Your task to perform on an android device: turn on the 12-hour format for clock Image 0: 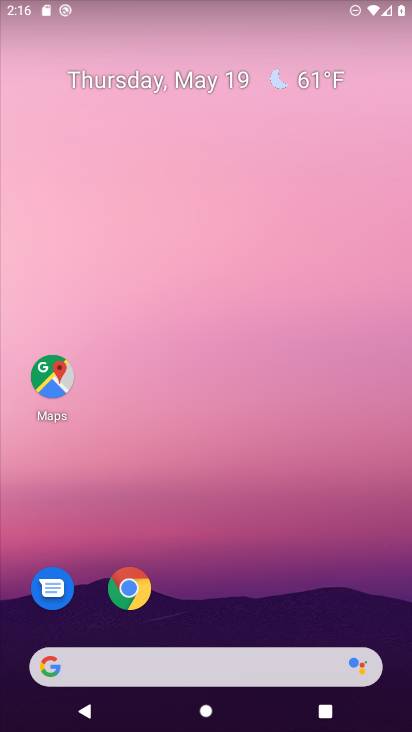
Step 0: drag from (342, 624) to (293, 0)
Your task to perform on an android device: turn on the 12-hour format for clock Image 1: 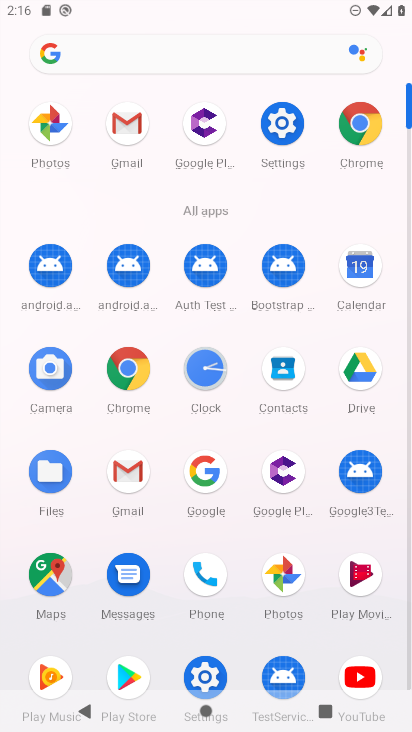
Step 1: click (206, 369)
Your task to perform on an android device: turn on the 12-hour format for clock Image 2: 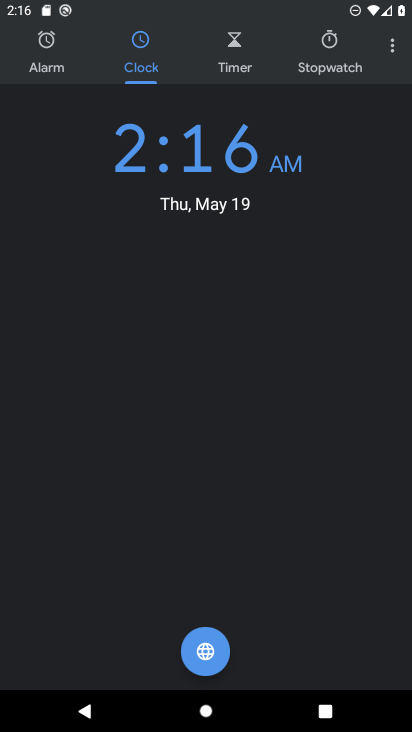
Step 2: click (394, 46)
Your task to perform on an android device: turn on the 12-hour format for clock Image 3: 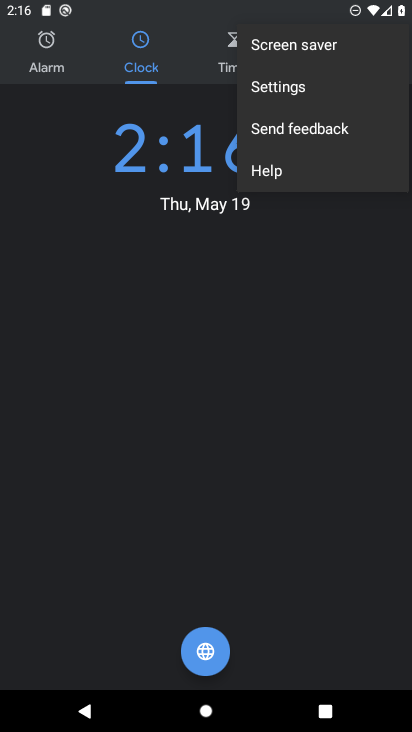
Step 3: click (275, 86)
Your task to perform on an android device: turn on the 12-hour format for clock Image 4: 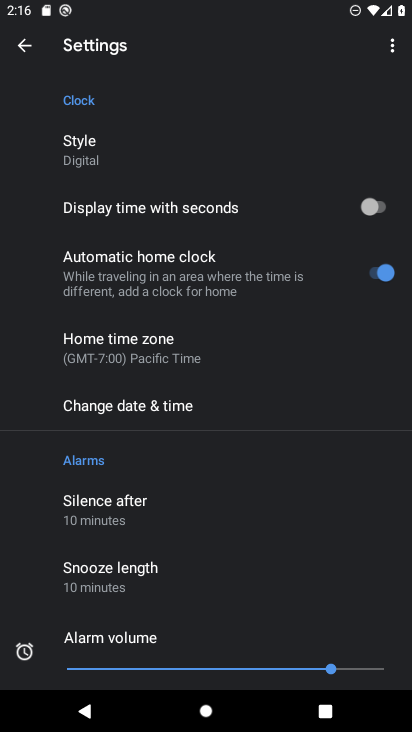
Step 4: click (95, 409)
Your task to perform on an android device: turn on the 12-hour format for clock Image 5: 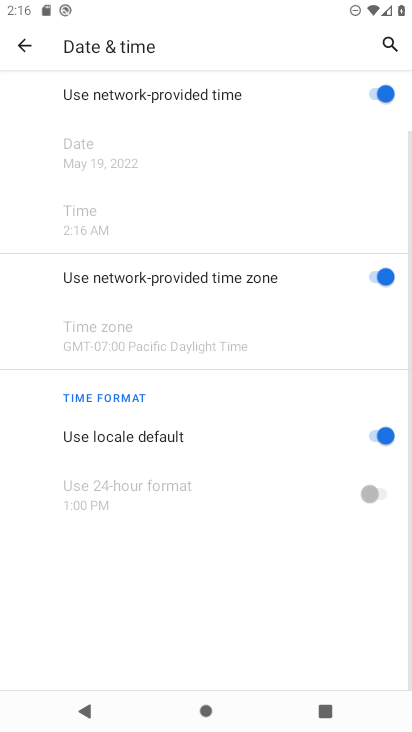
Step 5: task complete